Your task to perform on an android device: check battery use Image 0: 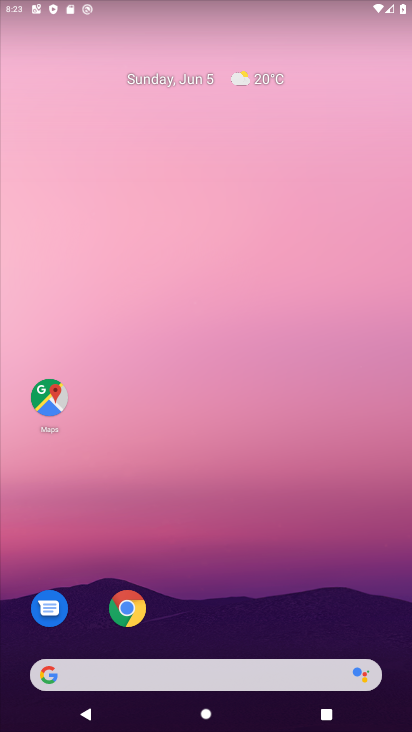
Step 0: press home button
Your task to perform on an android device: check battery use Image 1: 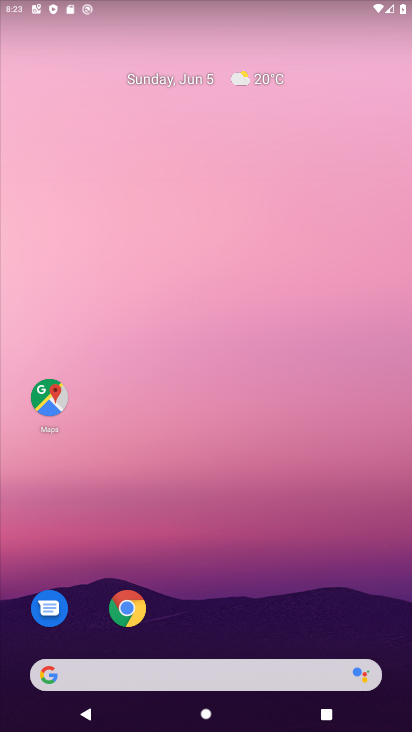
Step 1: drag from (7, 519) to (266, 76)
Your task to perform on an android device: check battery use Image 2: 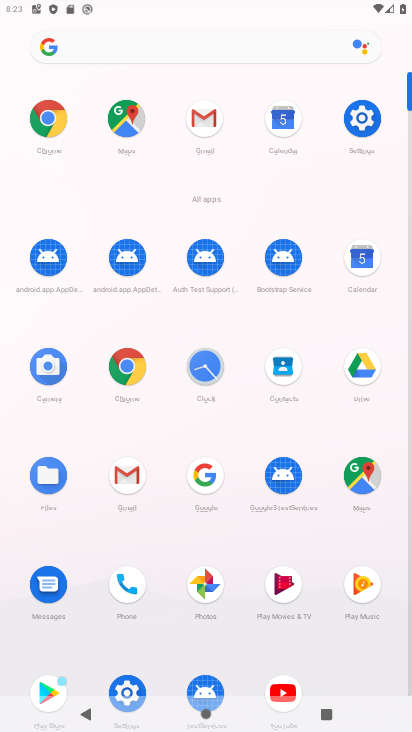
Step 2: click (355, 118)
Your task to perform on an android device: check battery use Image 3: 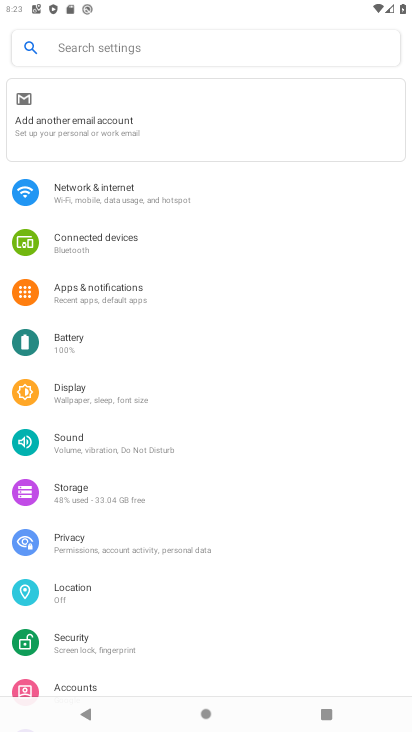
Step 3: click (33, 344)
Your task to perform on an android device: check battery use Image 4: 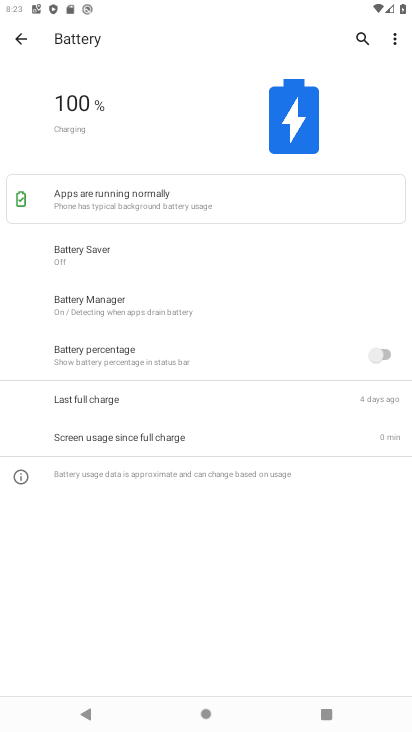
Step 4: task complete